Your task to perform on an android device: move a message to another label in the gmail app Image 0: 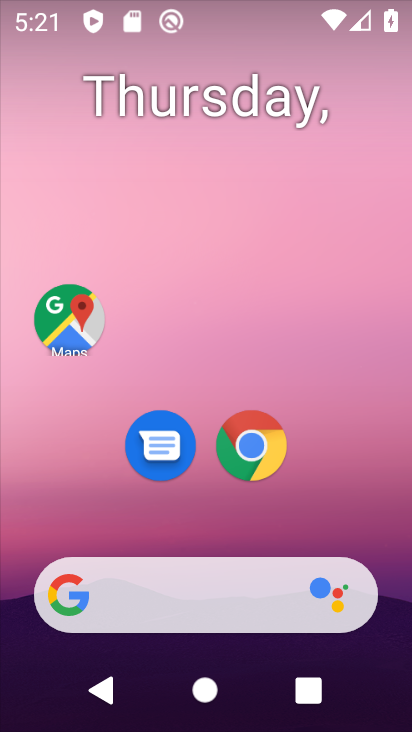
Step 0: drag from (321, 471) to (336, 150)
Your task to perform on an android device: move a message to another label in the gmail app Image 1: 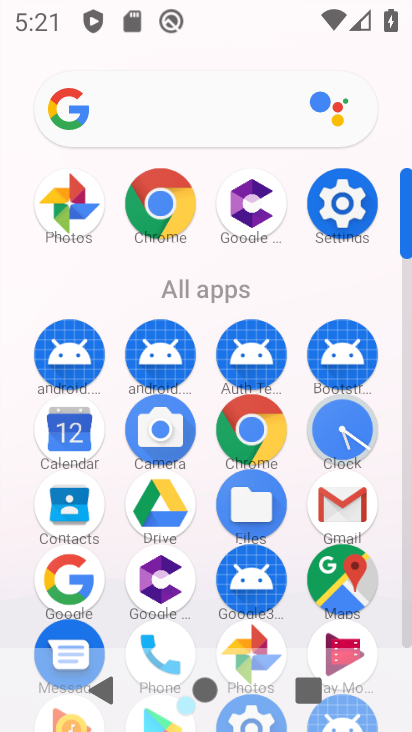
Step 1: drag from (272, 273) to (320, 49)
Your task to perform on an android device: move a message to another label in the gmail app Image 2: 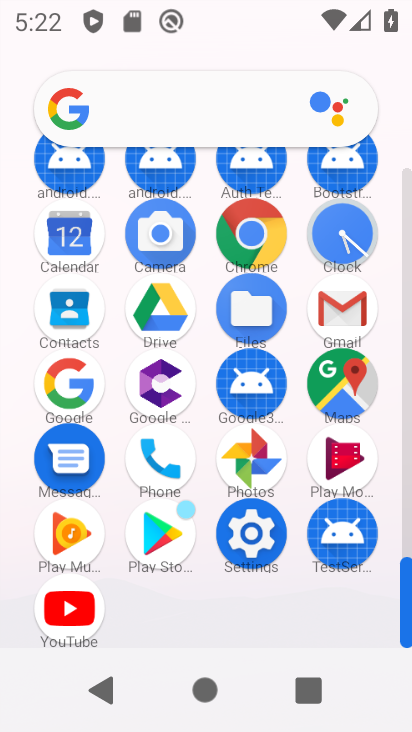
Step 2: click (332, 302)
Your task to perform on an android device: move a message to another label in the gmail app Image 3: 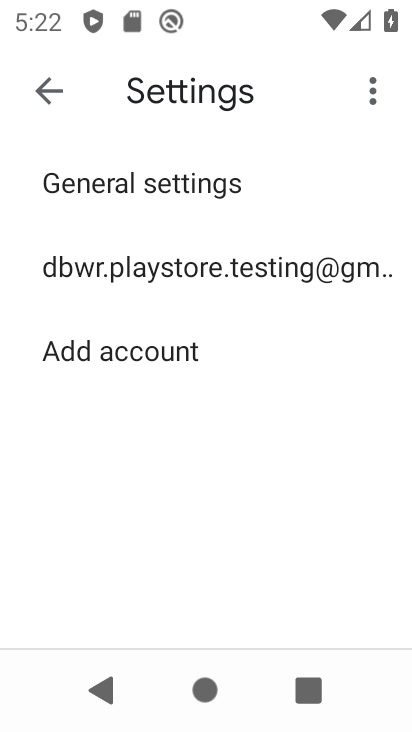
Step 3: click (345, 274)
Your task to perform on an android device: move a message to another label in the gmail app Image 4: 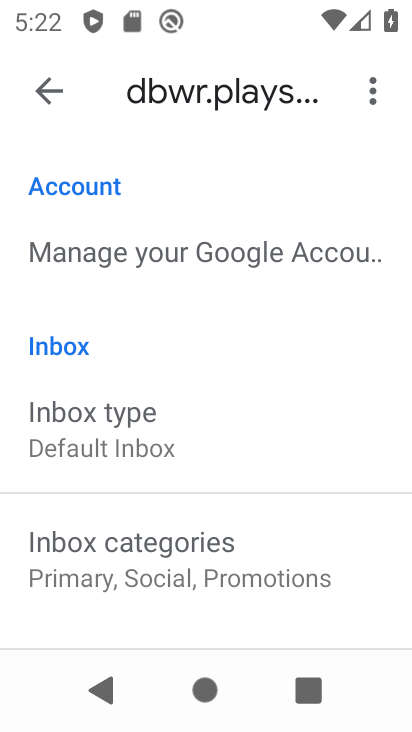
Step 4: click (37, 83)
Your task to perform on an android device: move a message to another label in the gmail app Image 5: 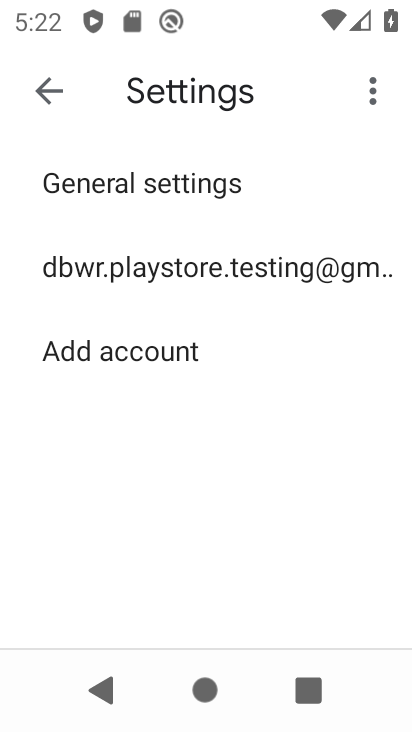
Step 5: click (37, 83)
Your task to perform on an android device: move a message to another label in the gmail app Image 6: 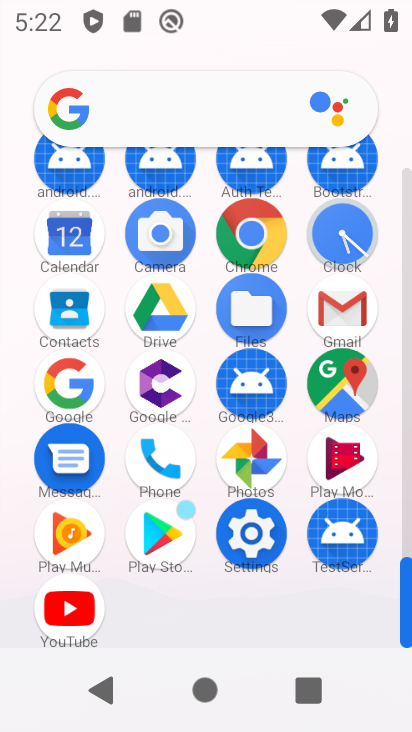
Step 6: click (334, 305)
Your task to perform on an android device: move a message to another label in the gmail app Image 7: 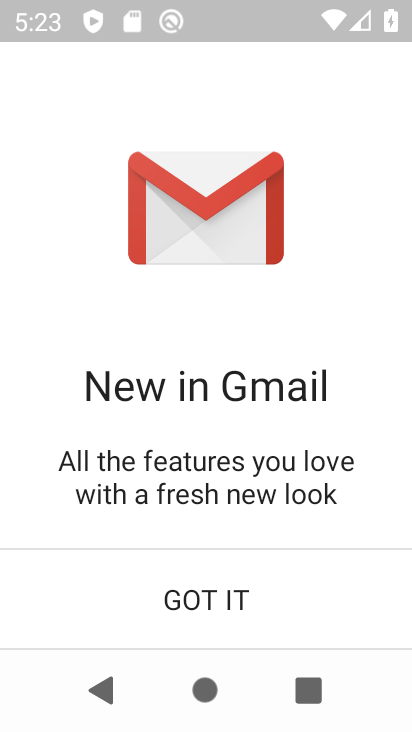
Step 7: click (192, 599)
Your task to perform on an android device: move a message to another label in the gmail app Image 8: 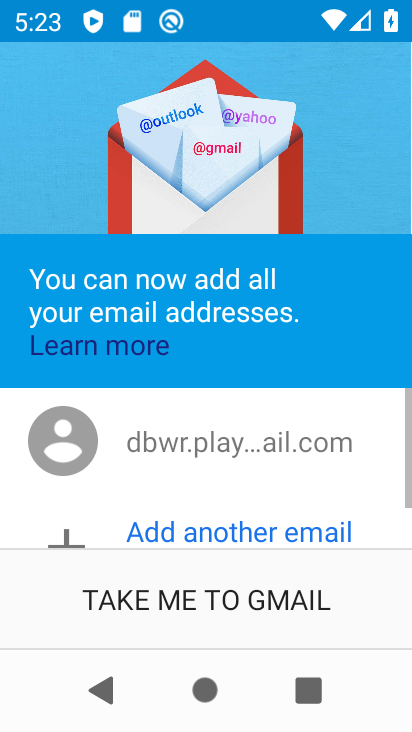
Step 8: click (192, 599)
Your task to perform on an android device: move a message to another label in the gmail app Image 9: 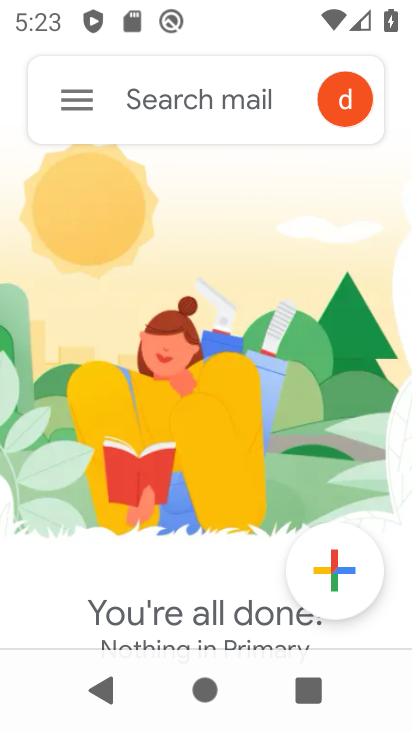
Step 9: task complete